Your task to perform on an android device: change timer sound Image 0: 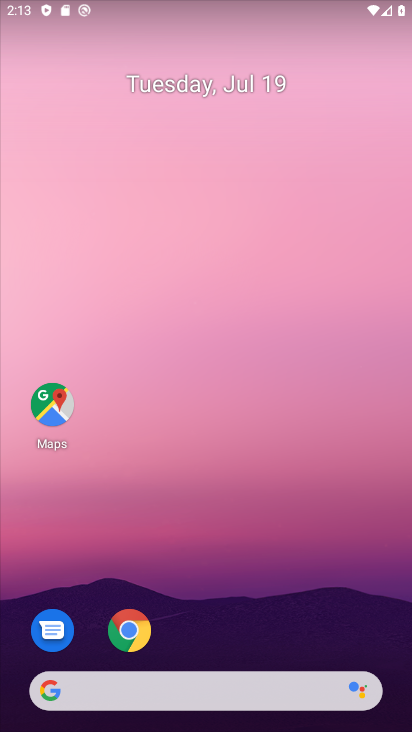
Step 0: drag from (211, 600) to (273, 67)
Your task to perform on an android device: change timer sound Image 1: 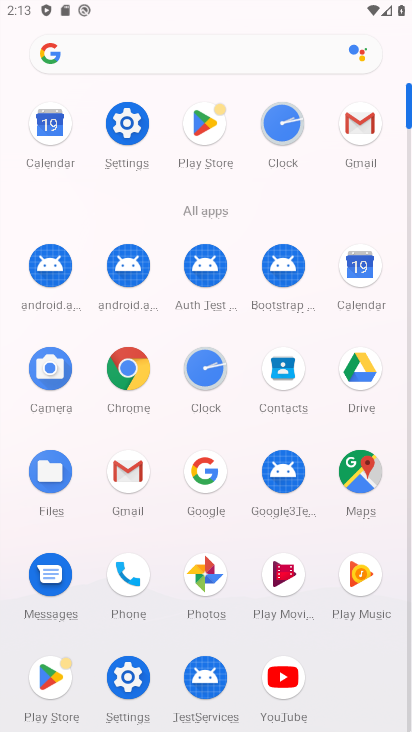
Step 1: click (288, 128)
Your task to perform on an android device: change timer sound Image 2: 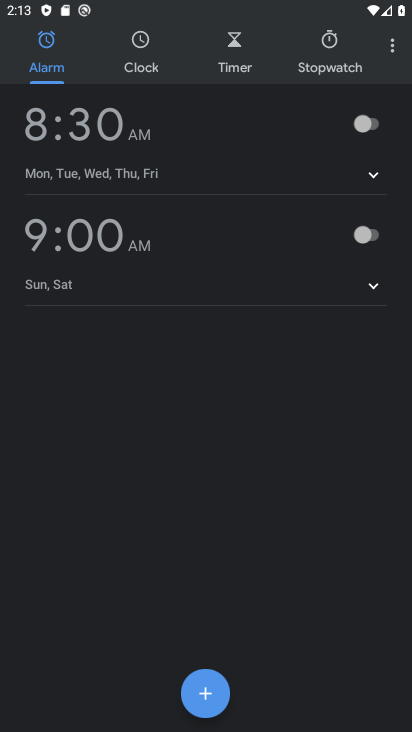
Step 2: click (241, 44)
Your task to perform on an android device: change timer sound Image 3: 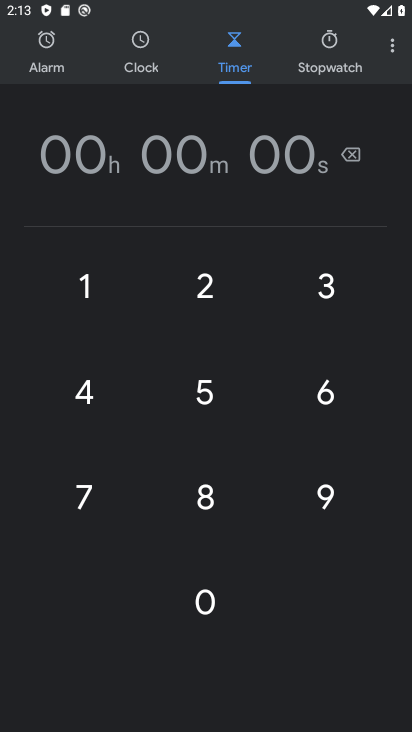
Step 3: click (130, 55)
Your task to perform on an android device: change timer sound Image 4: 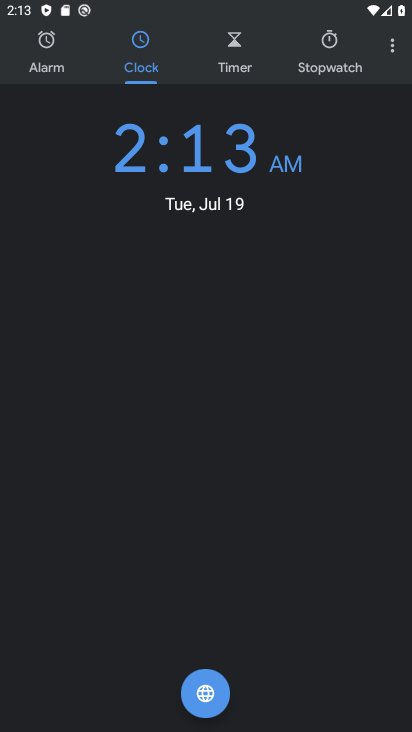
Step 4: click (390, 44)
Your task to perform on an android device: change timer sound Image 5: 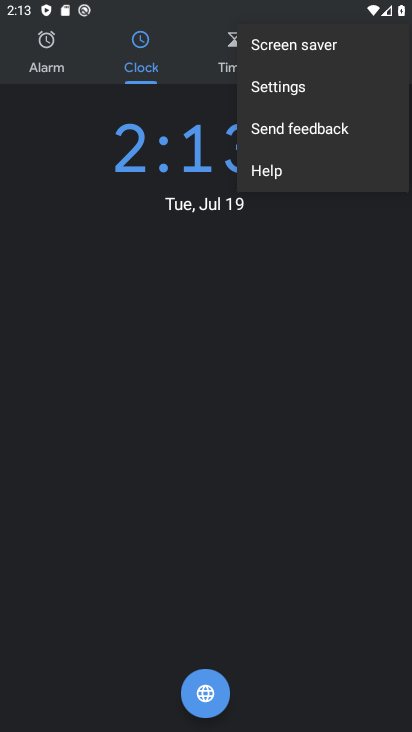
Step 5: click (307, 94)
Your task to perform on an android device: change timer sound Image 6: 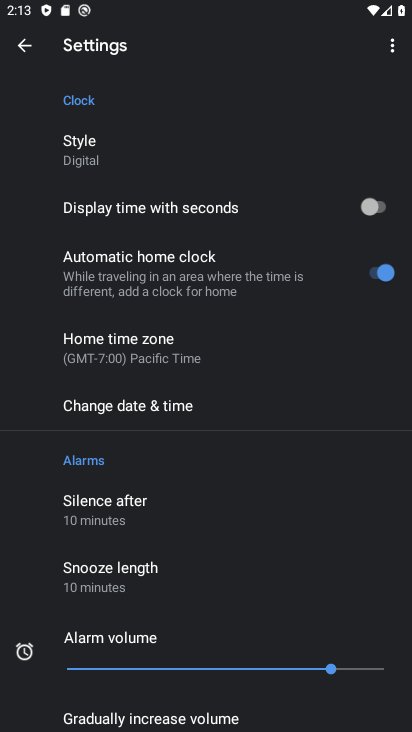
Step 6: drag from (176, 550) to (239, 177)
Your task to perform on an android device: change timer sound Image 7: 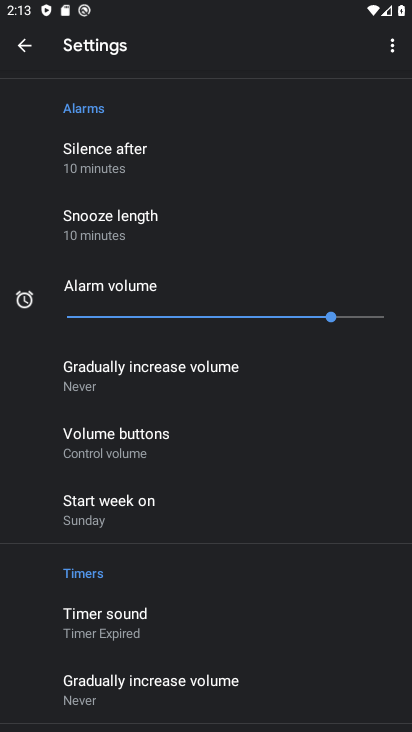
Step 7: click (128, 609)
Your task to perform on an android device: change timer sound Image 8: 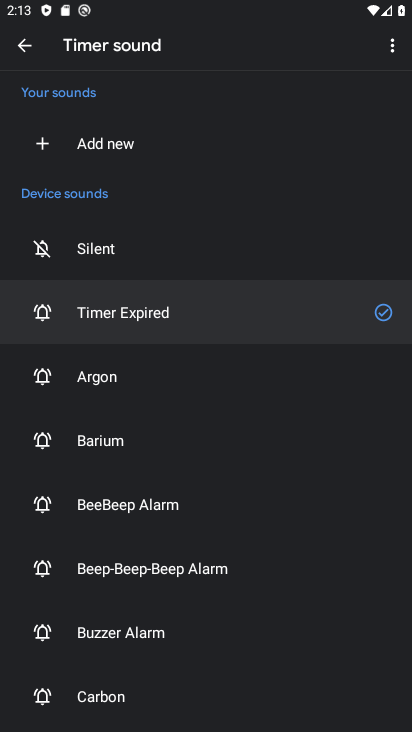
Step 8: click (103, 379)
Your task to perform on an android device: change timer sound Image 9: 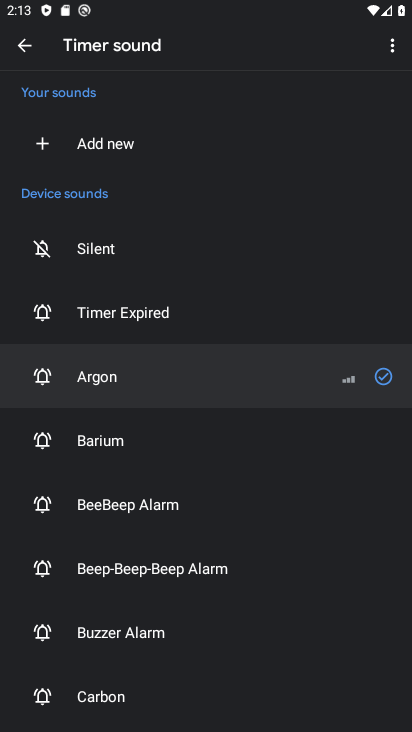
Step 9: task complete